Your task to perform on an android device: change the upload size in google photos Image 0: 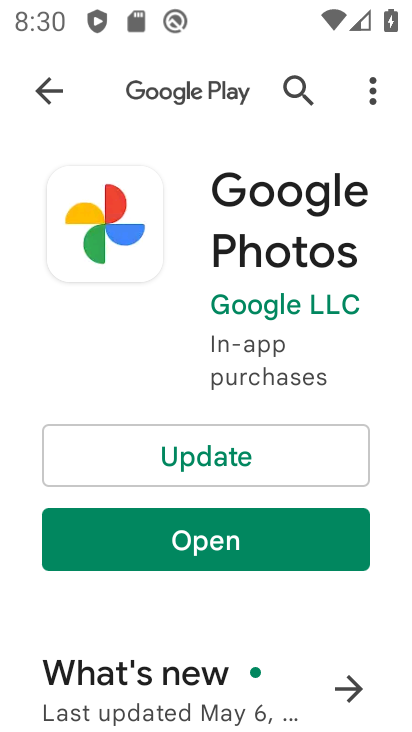
Step 0: click (149, 530)
Your task to perform on an android device: change the upload size in google photos Image 1: 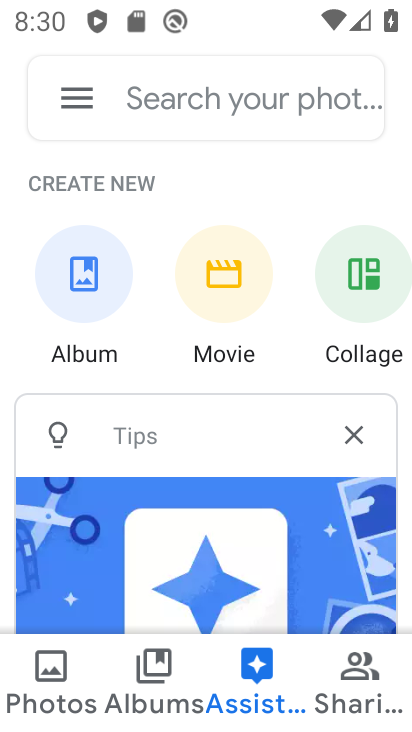
Step 1: click (61, 114)
Your task to perform on an android device: change the upload size in google photos Image 2: 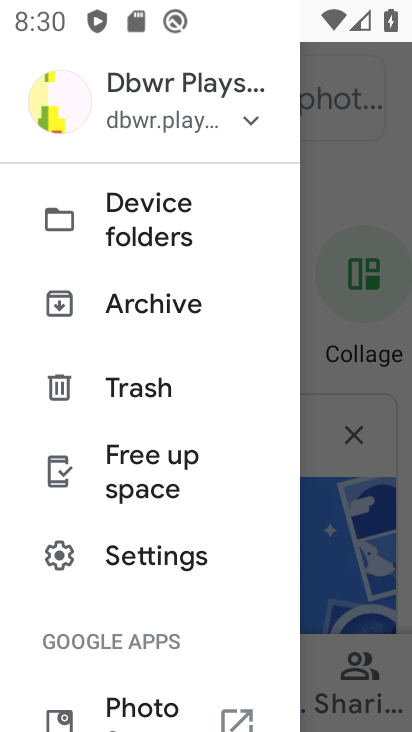
Step 2: click (114, 548)
Your task to perform on an android device: change the upload size in google photos Image 3: 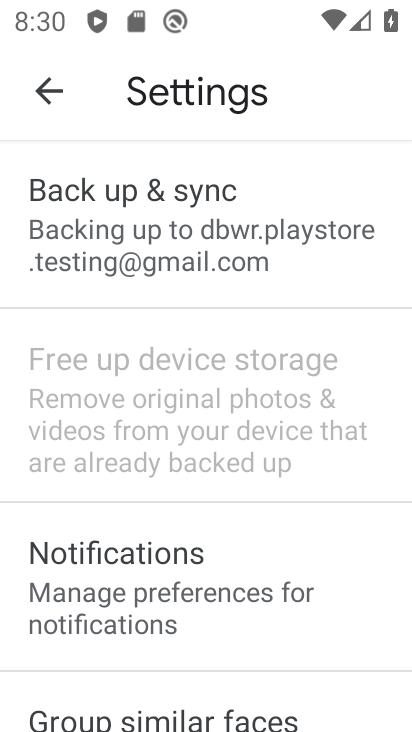
Step 3: click (195, 225)
Your task to perform on an android device: change the upload size in google photos Image 4: 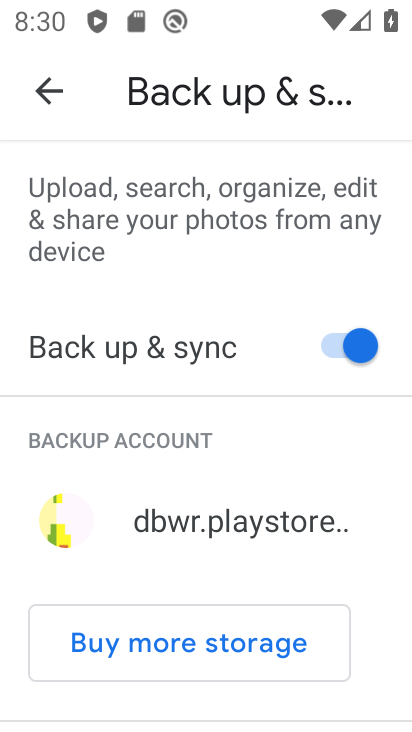
Step 4: drag from (207, 515) to (269, 231)
Your task to perform on an android device: change the upload size in google photos Image 5: 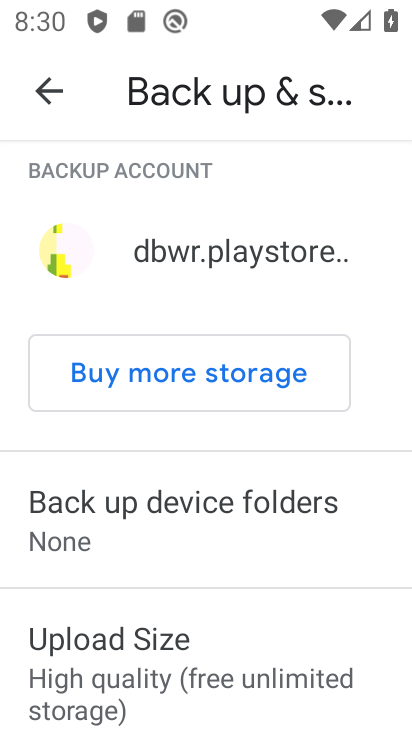
Step 5: click (146, 692)
Your task to perform on an android device: change the upload size in google photos Image 6: 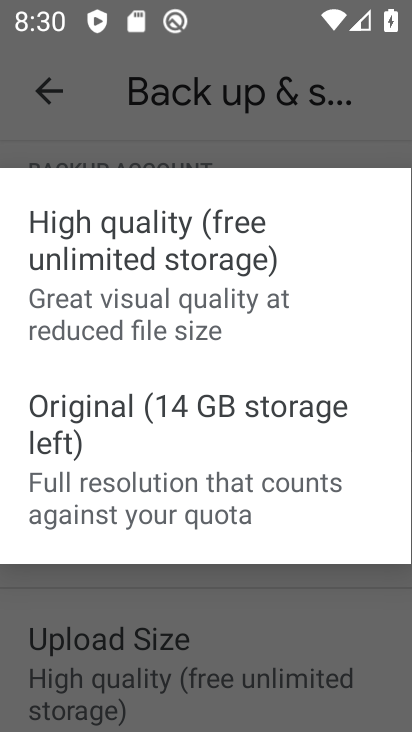
Step 6: click (125, 449)
Your task to perform on an android device: change the upload size in google photos Image 7: 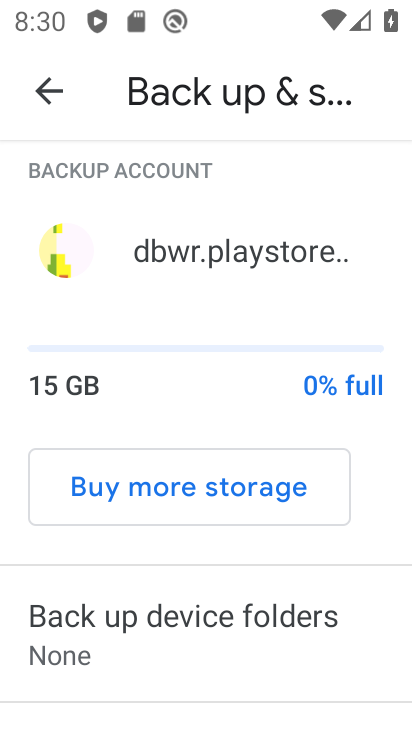
Step 7: task complete